Your task to perform on an android device: Add "macbook air" to the cart on amazon.com Image 0: 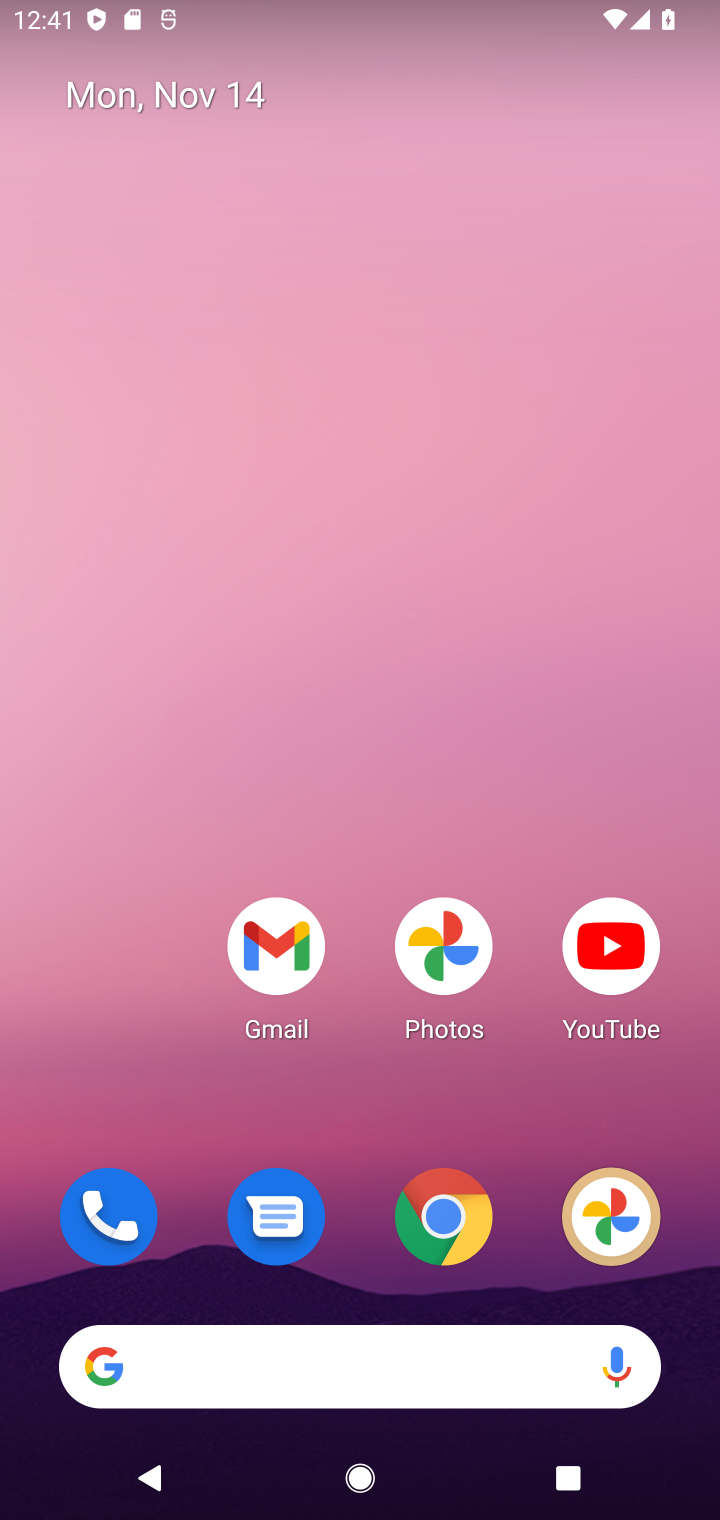
Step 0: click (716, 1324)
Your task to perform on an android device: Add "macbook air" to the cart on amazon.com Image 1: 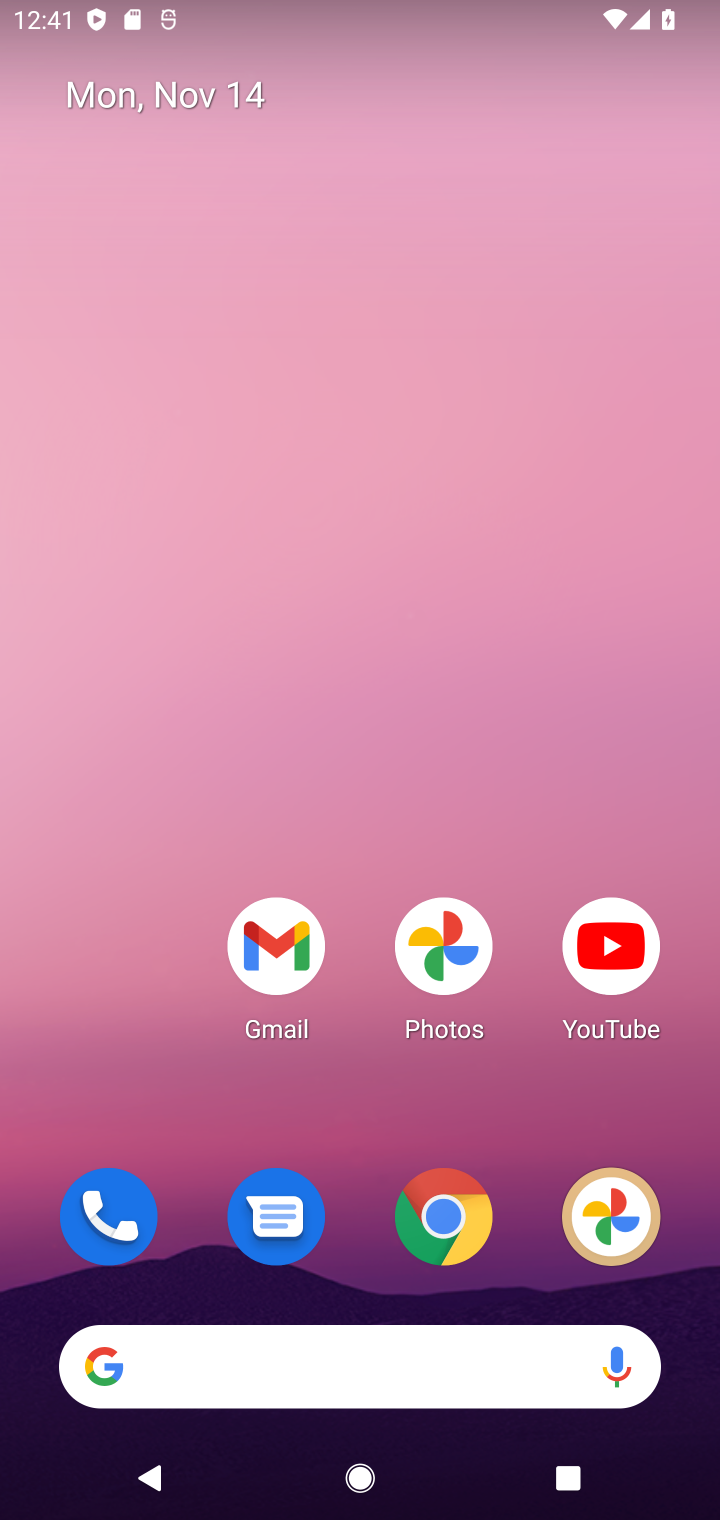
Step 1: click (440, 1212)
Your task to perform on an android device: Add "macbook air" to the cart on amazon.com Image 2: 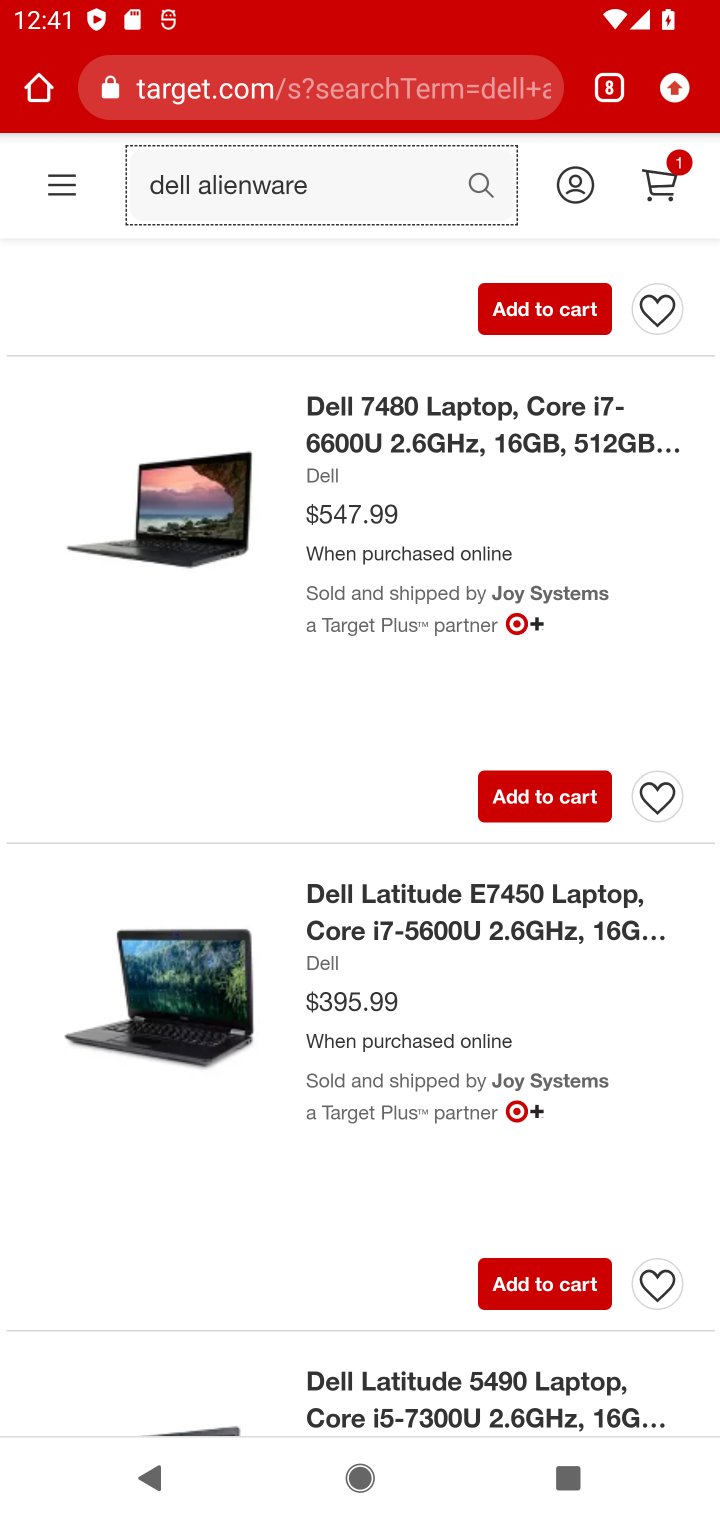
Step 2: click (238, 1504)
Your task to perform on an android device: Add "macbook air" to the cart on amazon.com Image 3: 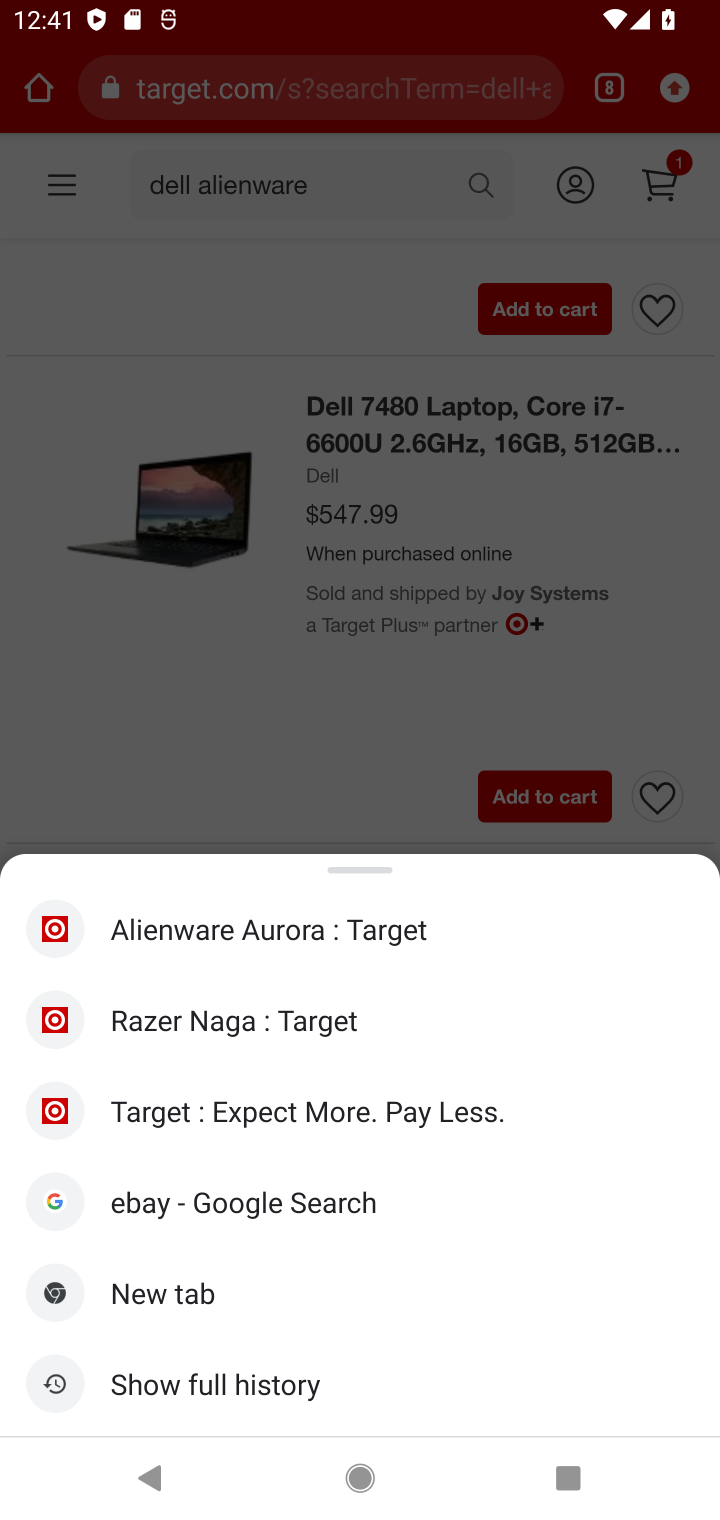
Step 3: click (236, 683)
Your task to perform on an android device: Add "macbook air" to the cart on amazon.com Image 4: 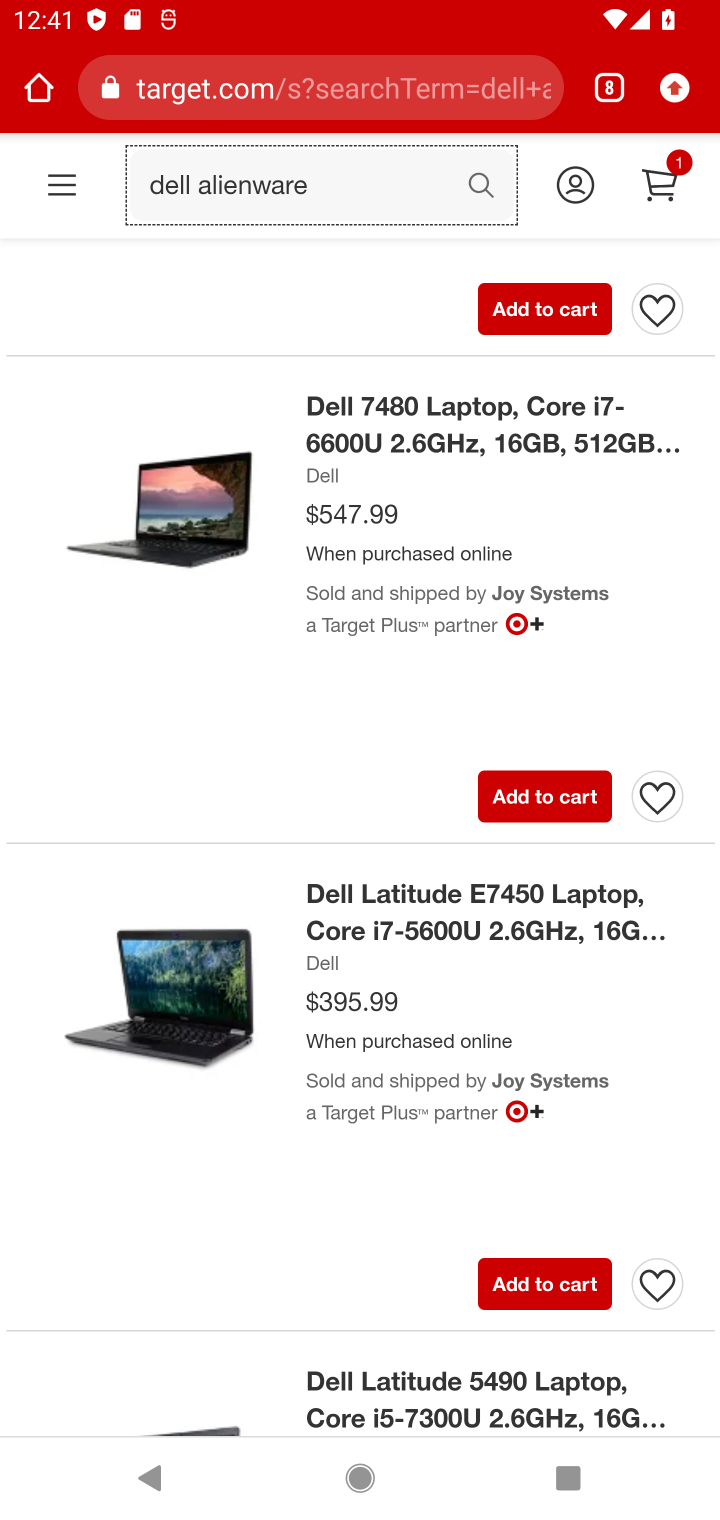
Step 4: click (625, 92)
Your task to perform on an android device: Add "macbook air" to the cart on amazon.com Image 5: 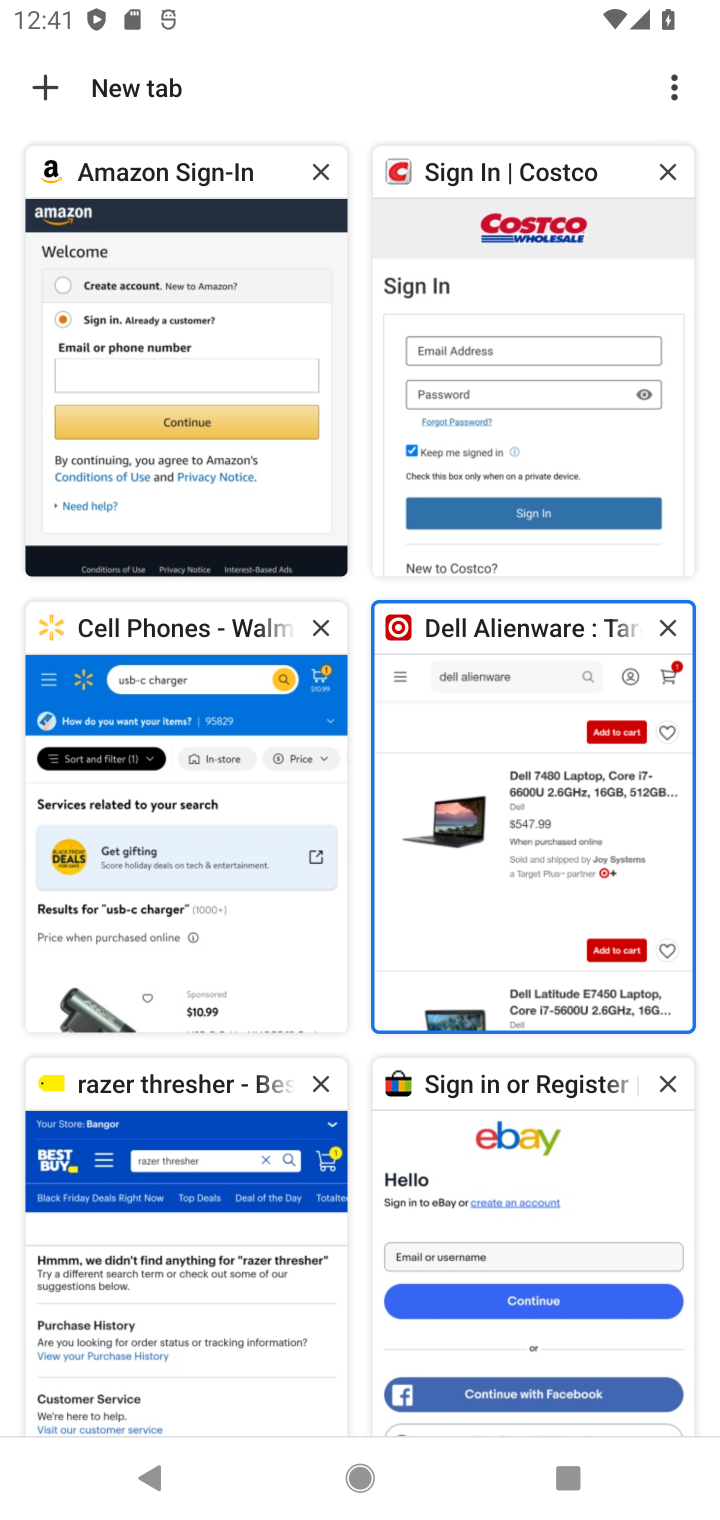
Step 5: click (113, 362)
Your task to perform on an android device: Add "macbook air" to the cart on amazon.com Image 6: 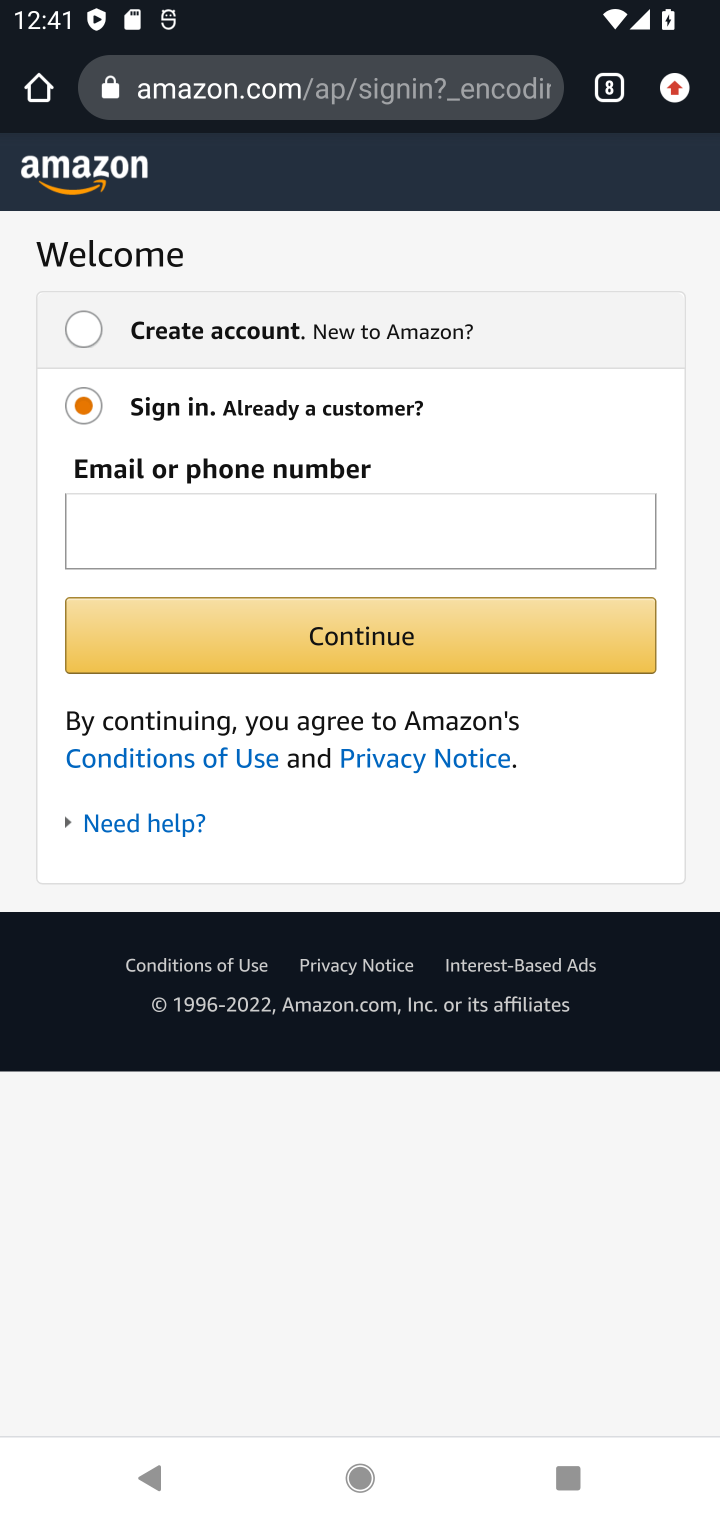
Step 6: press back button
Your task to perform on an android device: Add "macbook air" to the cart on amazon.com Image 7: 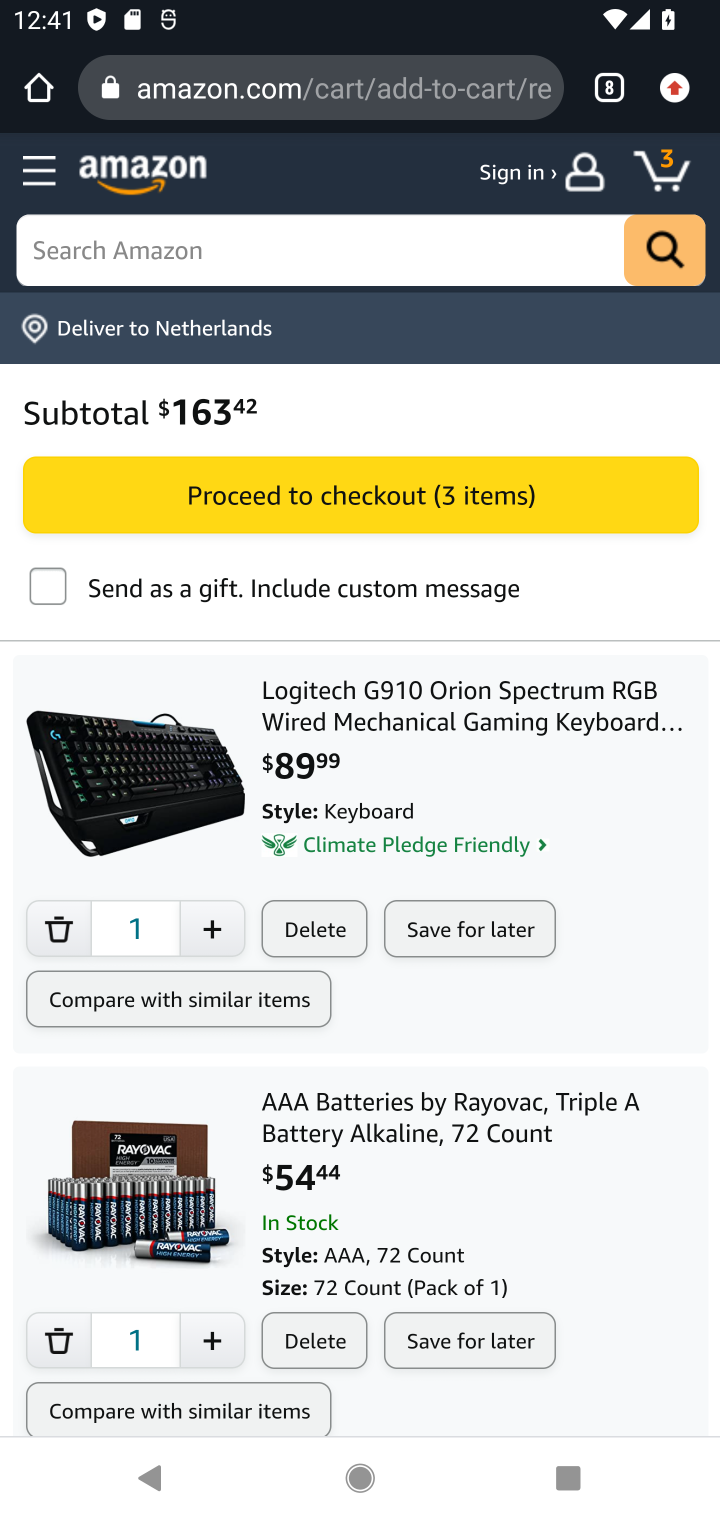
Step 7: click (318, 249)
Your task to perform on an android device: Add "macbook air" to the cart on amazon.com Image 8: 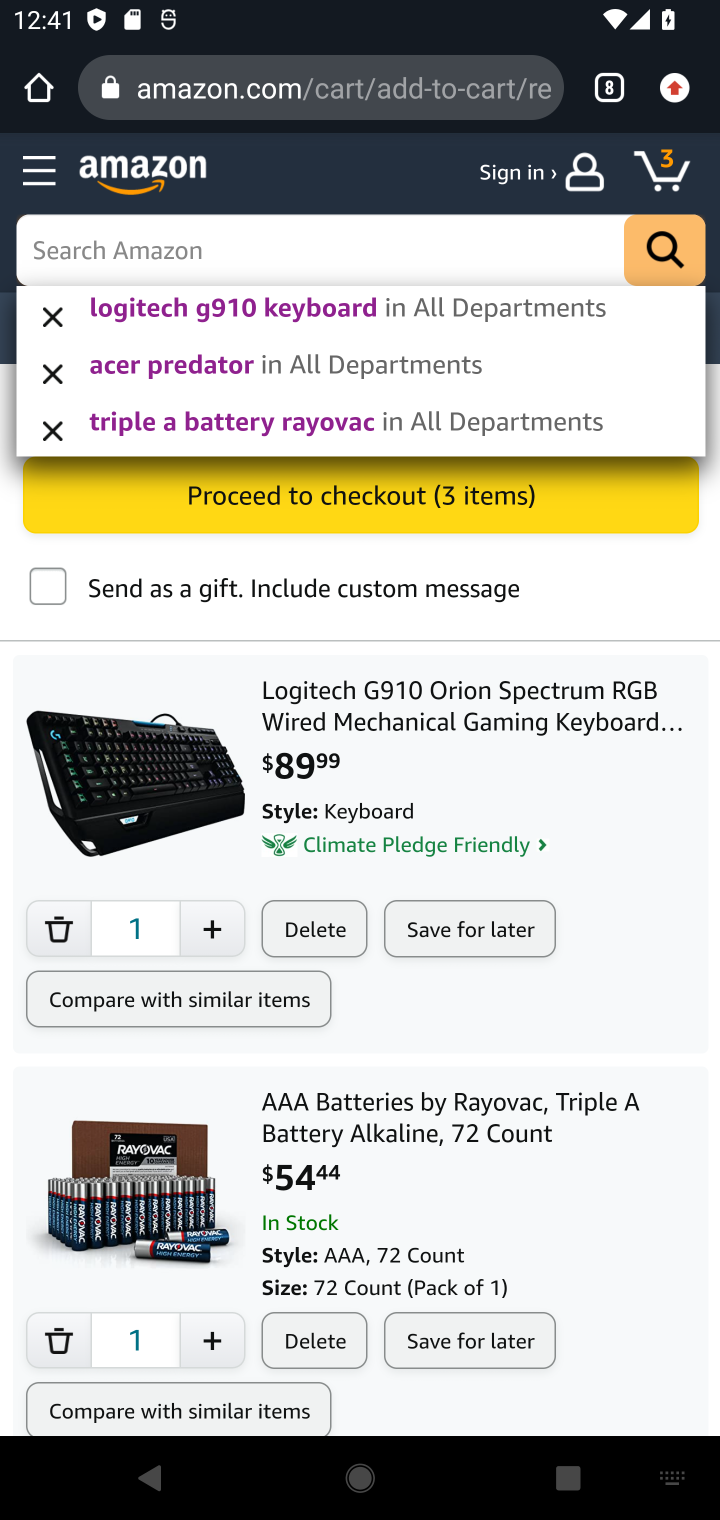
Step 8: type "macbook air"
Your task to perform on an android device: Add "macbook air" to the cart on amazon.com Image 9: 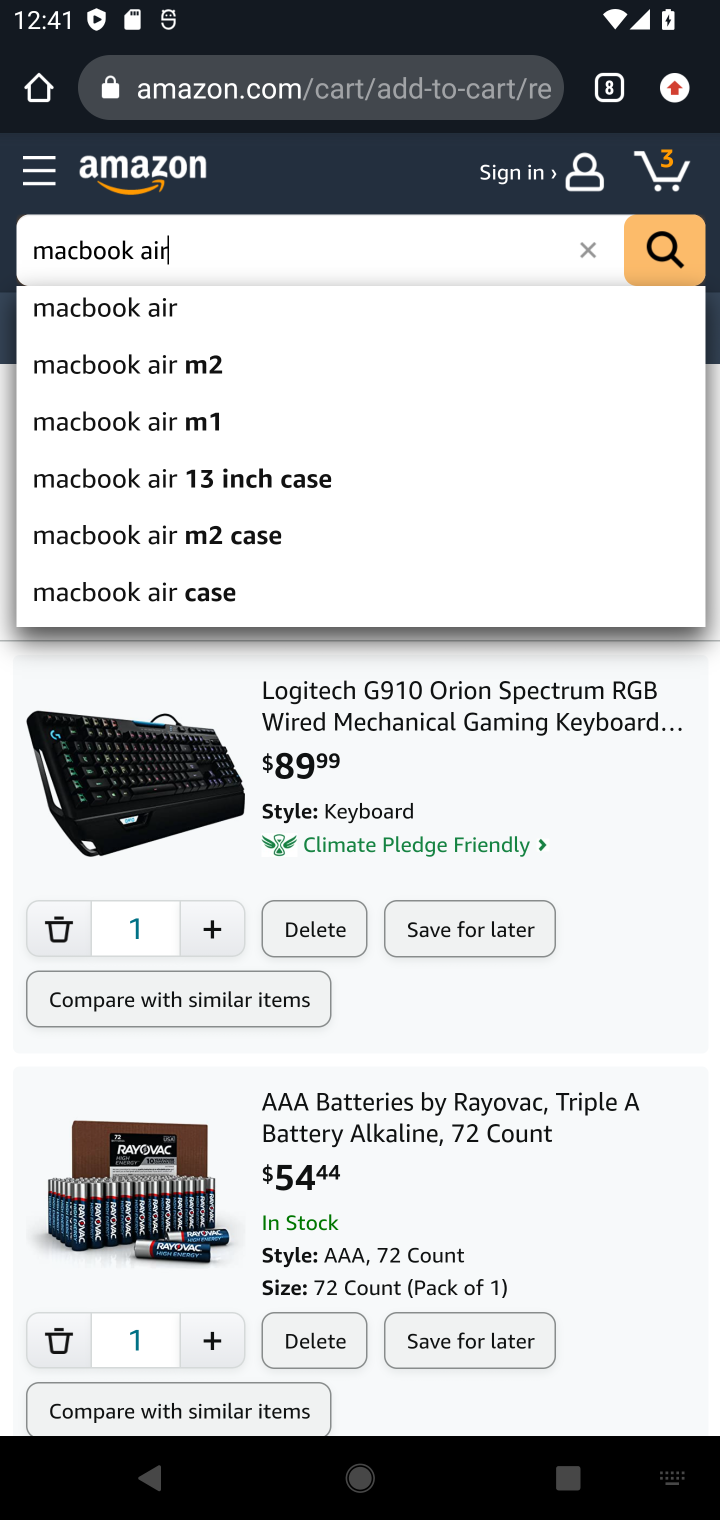
Step 9: click (89, 305)
Your task to perform on an android device: Add "macbook air" to the cart on amazon.com Image 10: 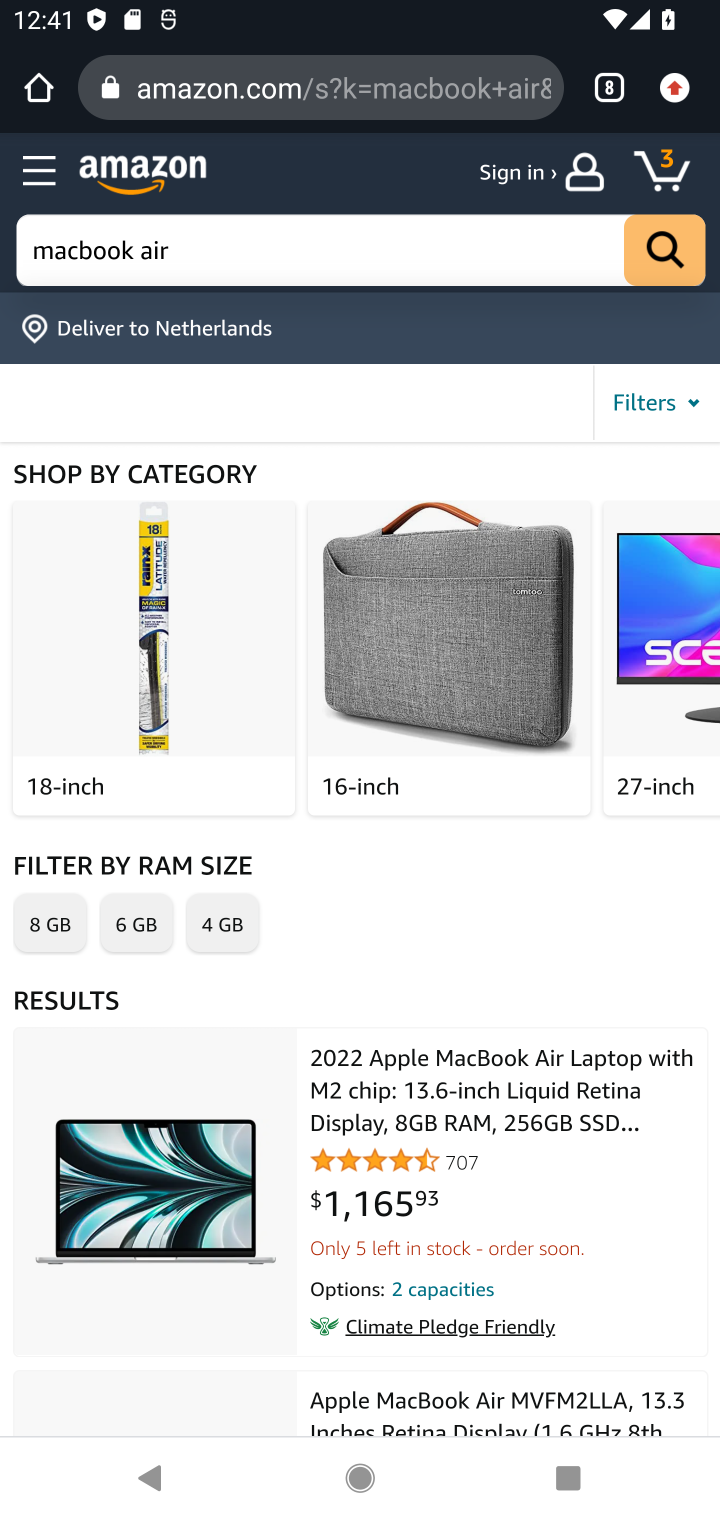
Step 10: drag from (518, 952) to (579, 317)
Your task to perform on an android device: Add "macbook air" to the cart on amazon.com Image 11: 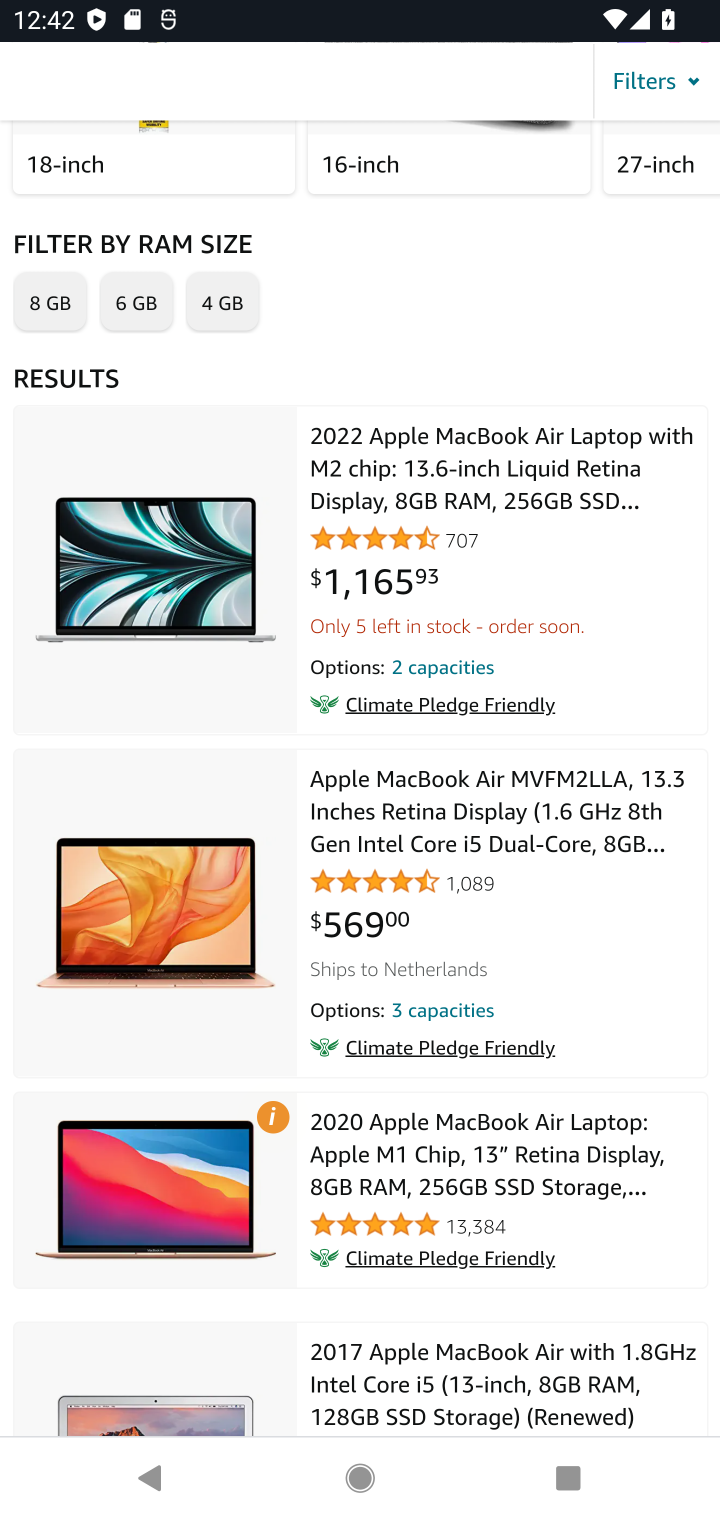
Step 11: click (509, 473)
Your task to perform on an android device: Add "macbook air" to the cart on amazon.com Image 12: 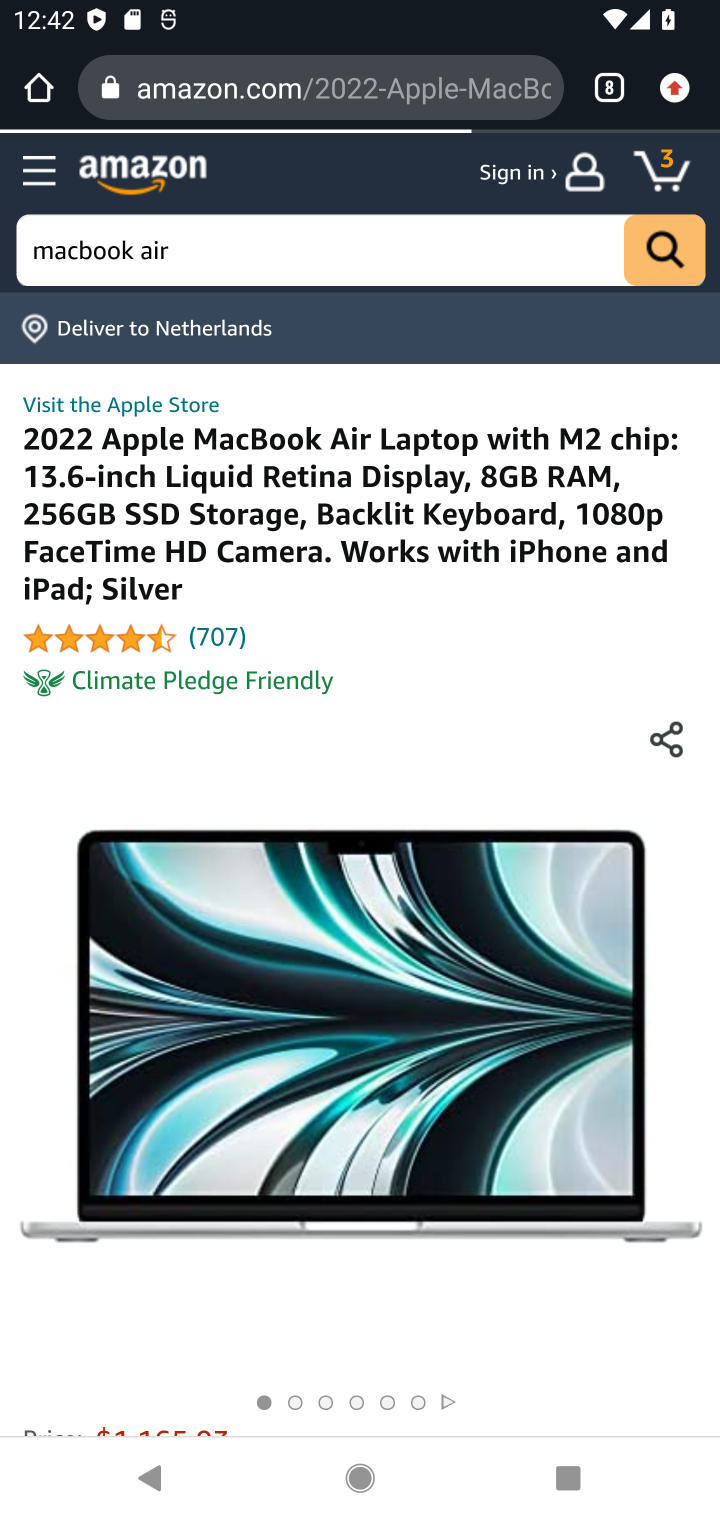
Step 12: drag from (550, 1279) to (656, 943)
Your task to perform on an android device: Add "macbook air" to the cart on amazon.com Image 13: 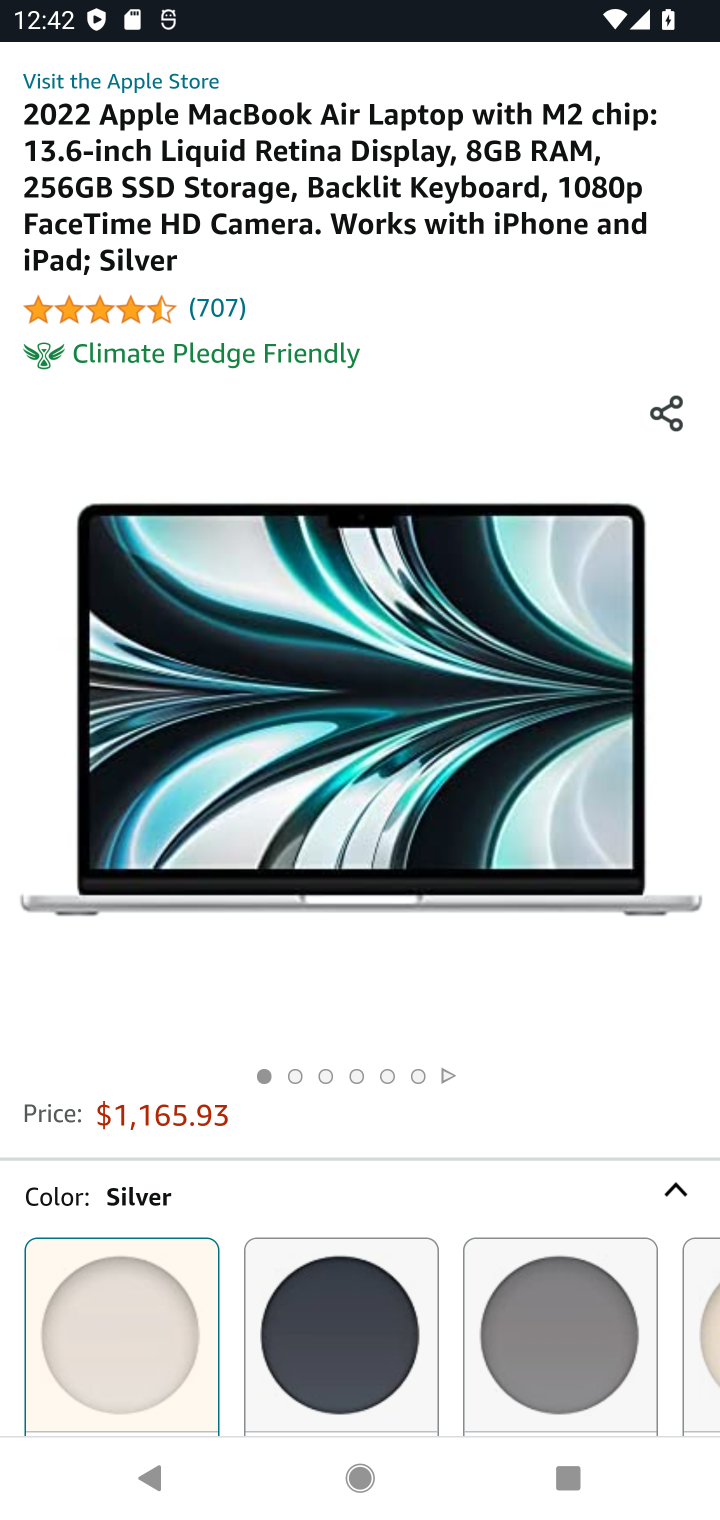
Step 13: drag from (515, 1089) to (405, 267)
Your task to perform on an android device: Add "macbook air" to the cart on amazon.com Image 14: 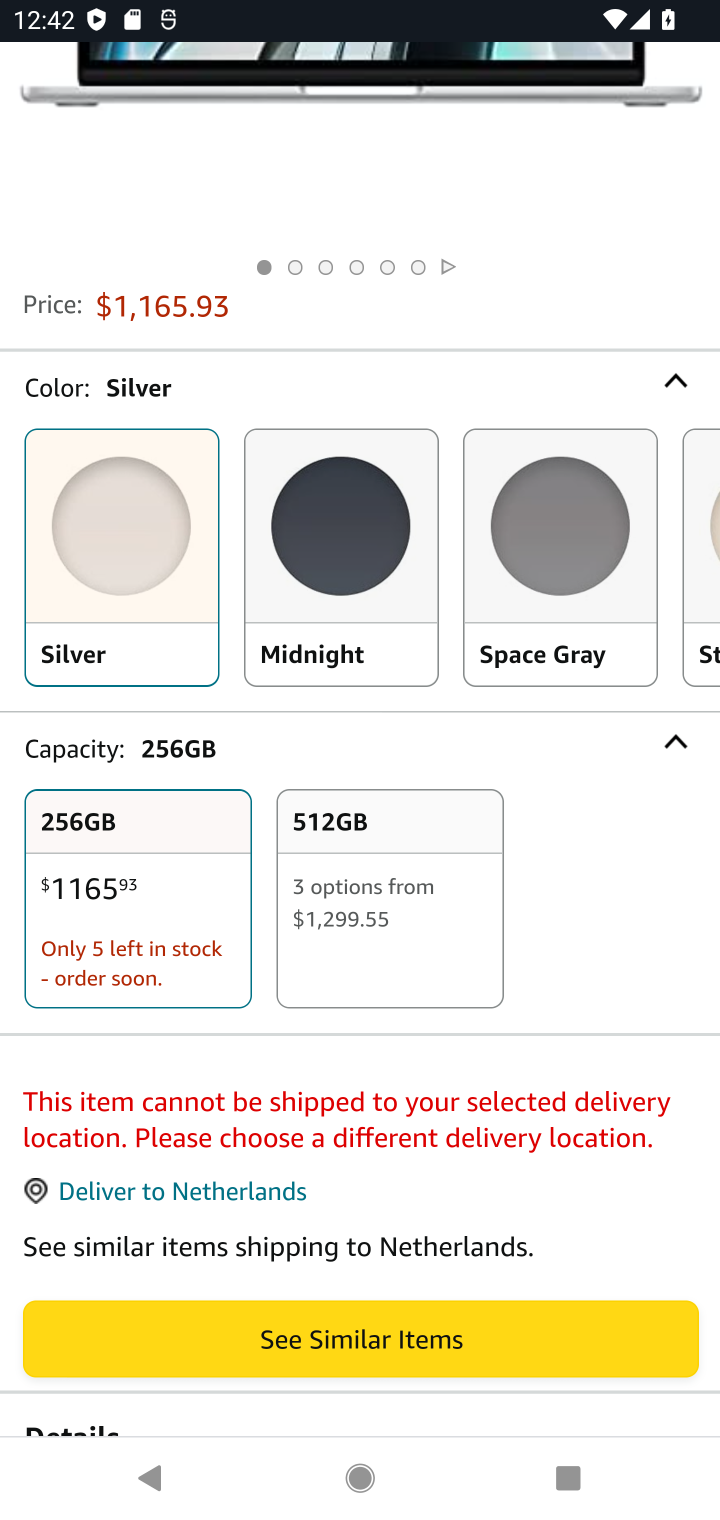
Step 14: click (515, 1322)
Your task to perform on an android device: Add "macbook air" to the cart on amazon.com Image 15: 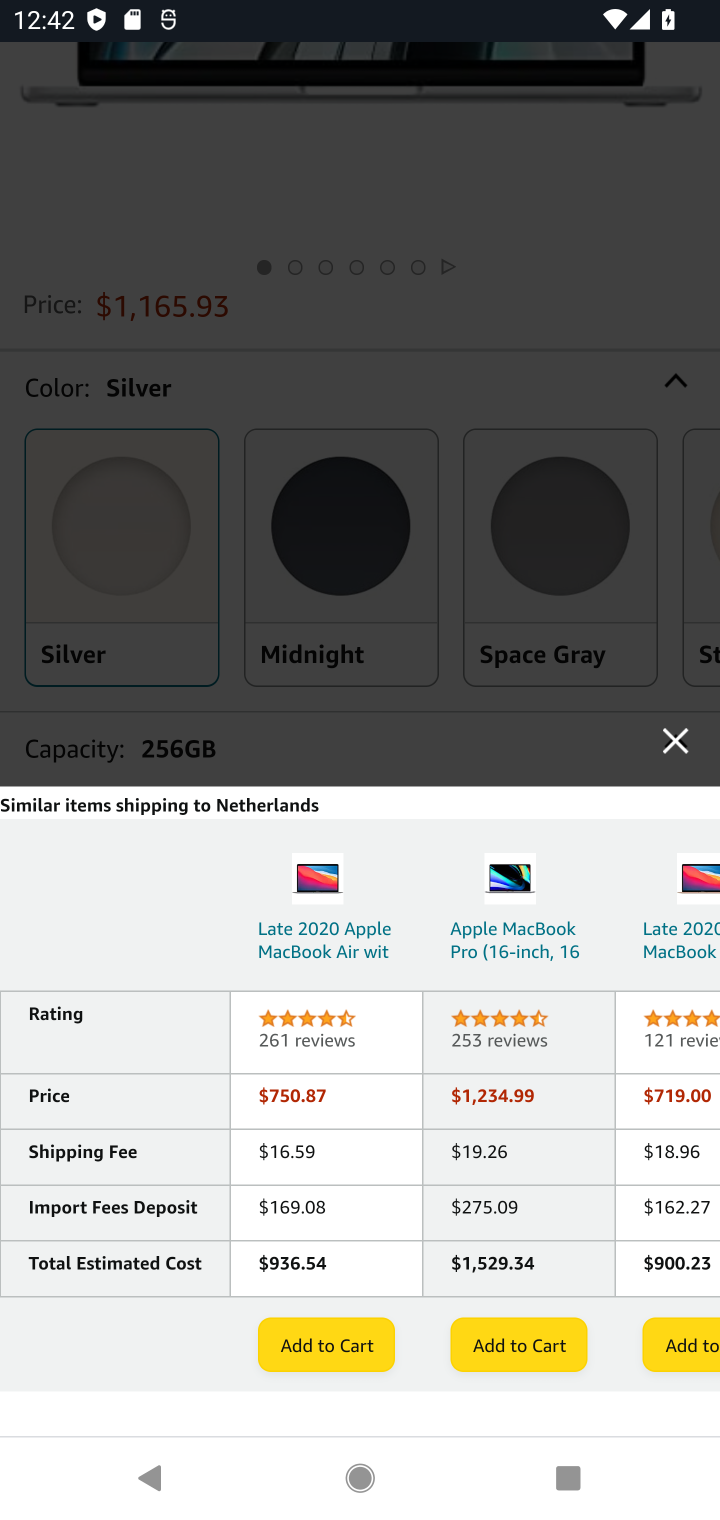
Step 15: click (359, 1347)
Your task to perform on an android device: Add "macbook air" to the cart on amazon.com Image 16: 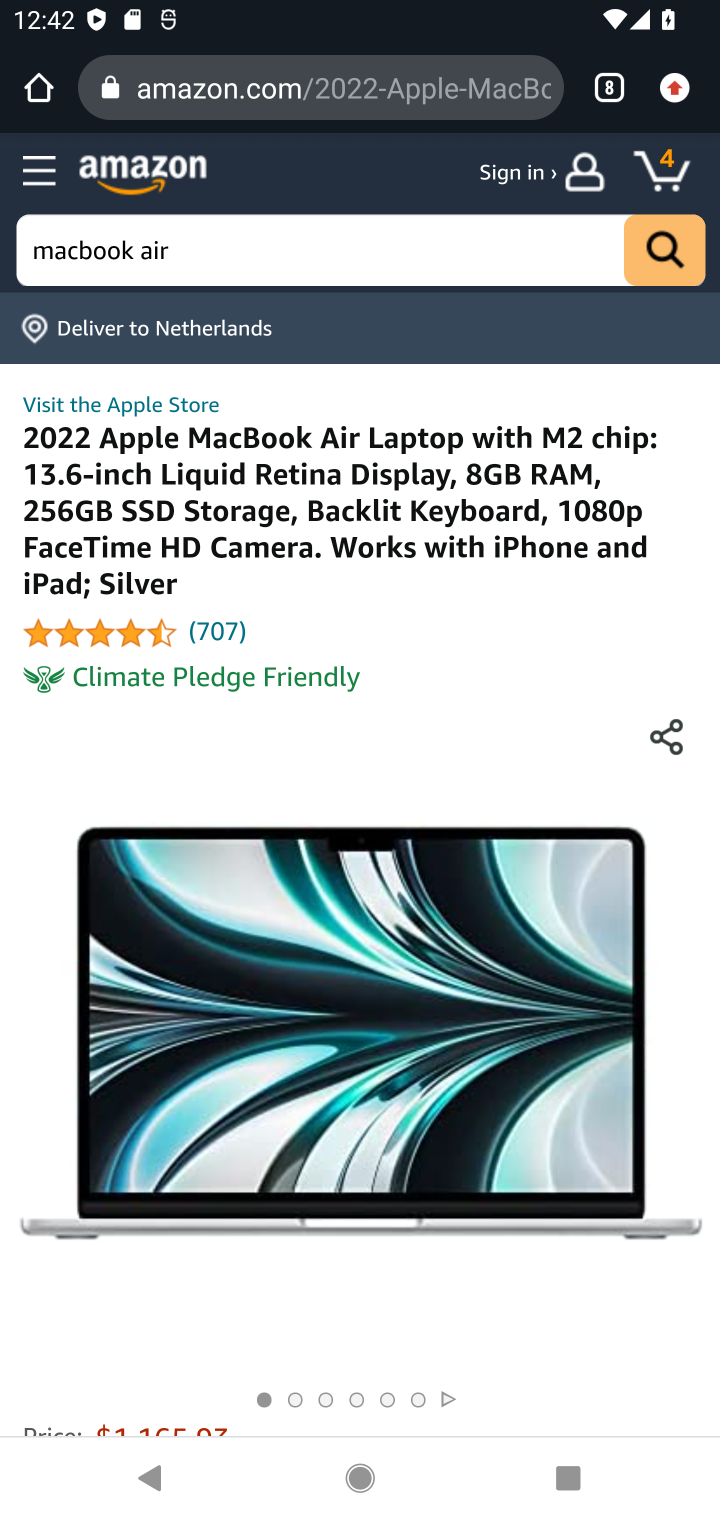
Step 16: task complete